Your task to perform on an android device: Go to Amazon Image 0: 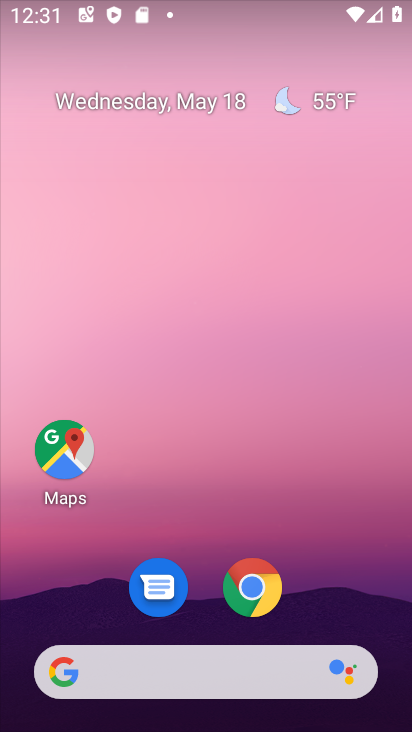
Step 0: click (253, 591)
Your task to perform on an android device: Go to Amazon Image 1: 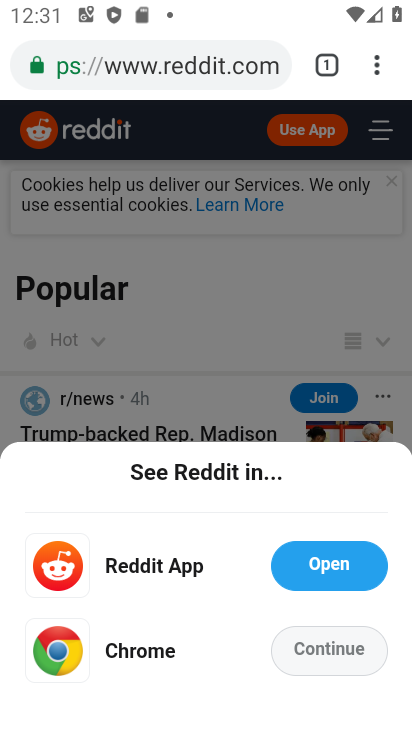
Step 1: click (329, 654)
Your task to perform on an android device: Go to Amazon Image 2: 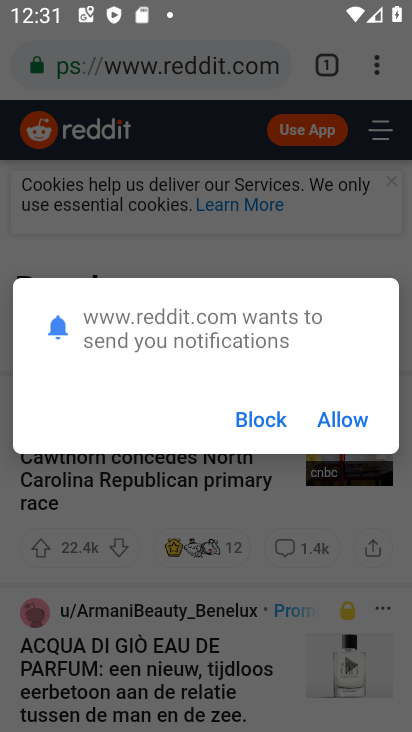
Step 2: click (271, 421)
Your task to perform on an android device: Go to Amazon Image 3: 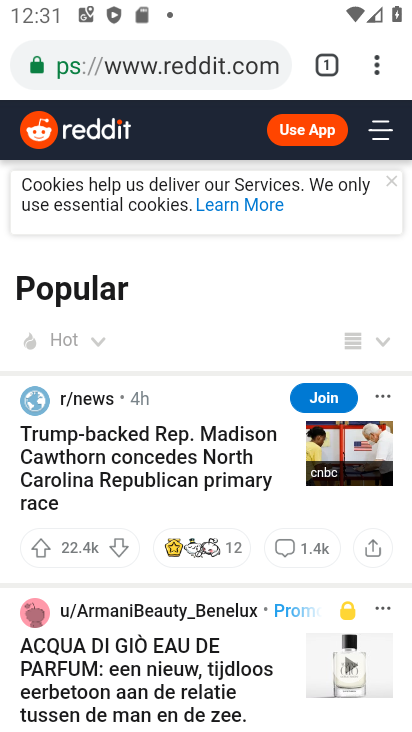
Step 3: press back button
Your task to perform on an android device: Go to Amazon Image 4: 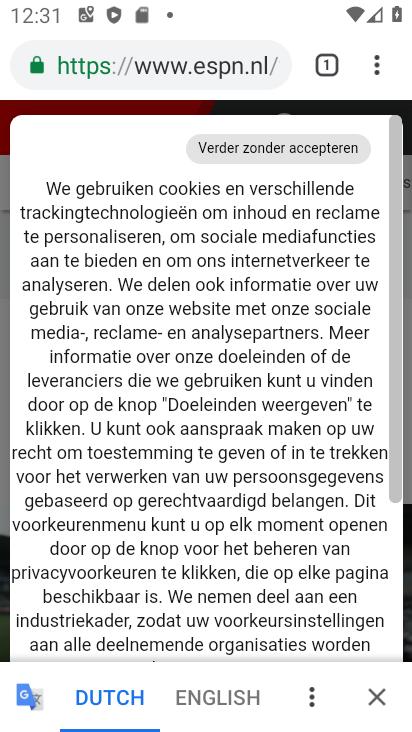
Step 4: press back button
Your task to perform on an android device: Go to Amazon Image 5: 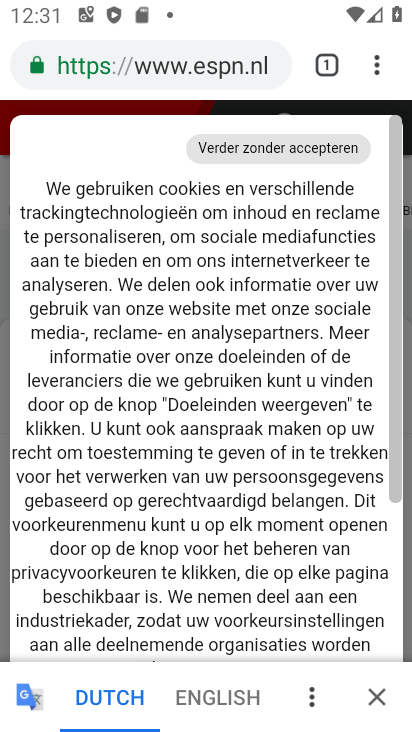
Step 5: press back button
Your task to perform on an android device: Go to Amazon Image 6: 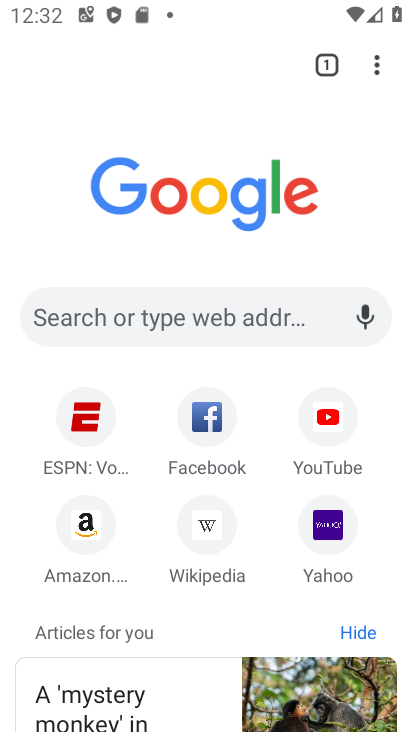
Step 6: click (88, 542)
Your task to perform on an android device: Go to Amazon Image 7: 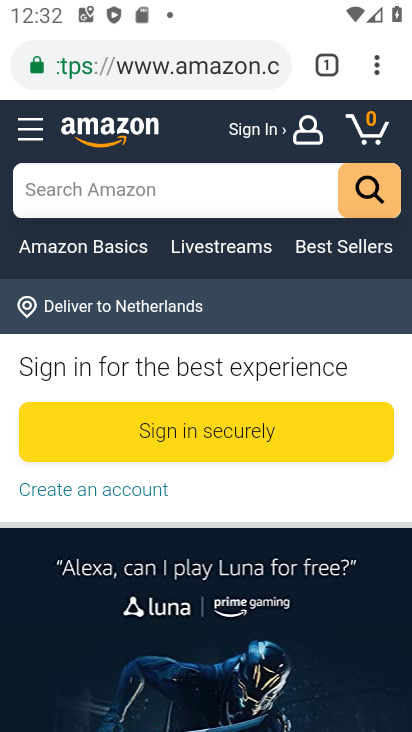
Step 7: task complete